Your task to perform on an android device: toggle airplane mode Image 0: 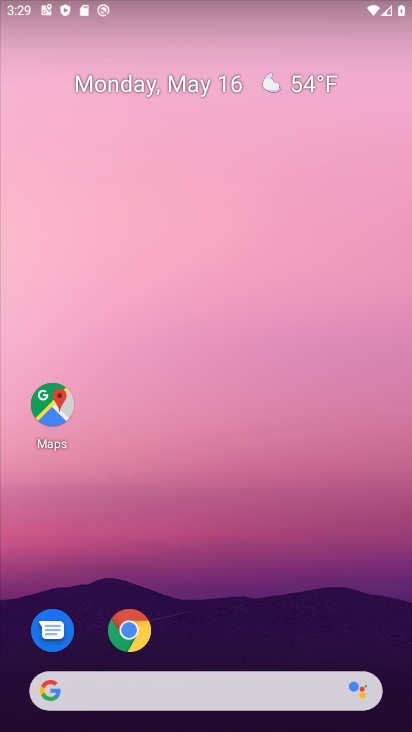
Step 0: drag from (227, 630) to (244, 142)
Your task to perform on an android device: toggle airplane mode Image 1: 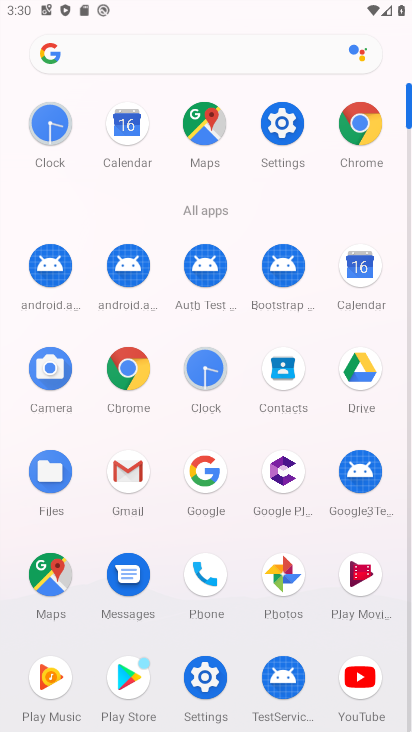
Step 1: click (277, 138)
Your task to perform on an android device: toggle airplane mode Image 2: 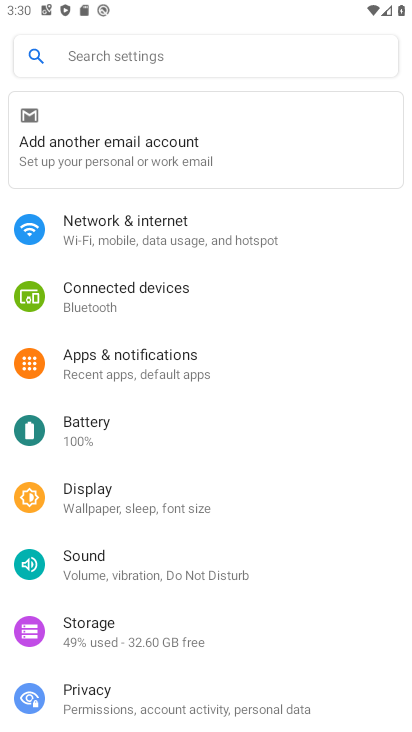
Step 2: click (310, 238)
Your task to perform on an android device: toggle airplane mode Image 3: 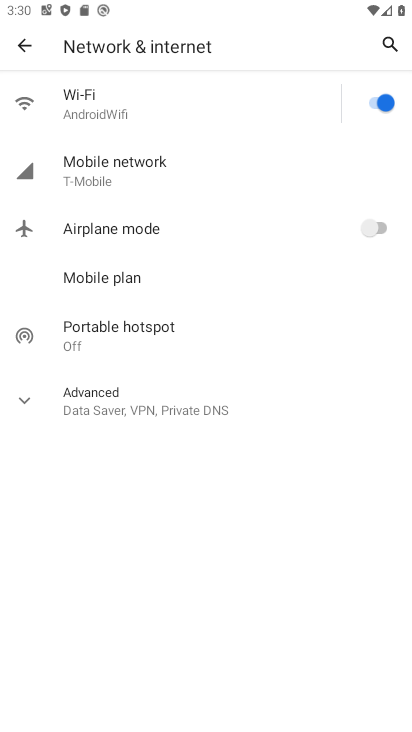
Step 3: click (376, 222)
Your task to perform on an android device: toggle airplane mode Image 4: 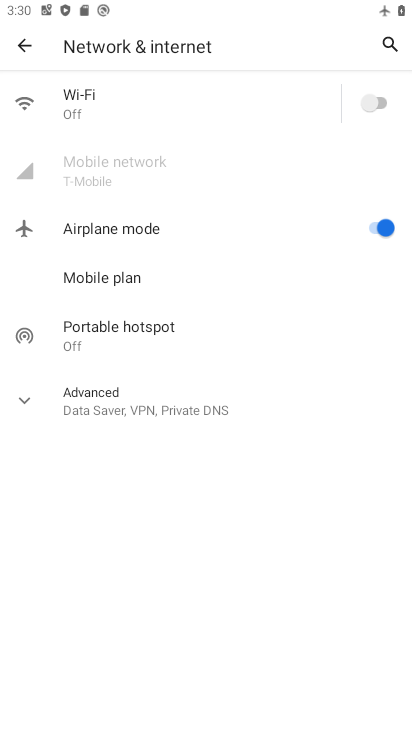
Step 4: task complete